Your task to perform on an android device: Open Youtube and go to "Your channel" Image 0: 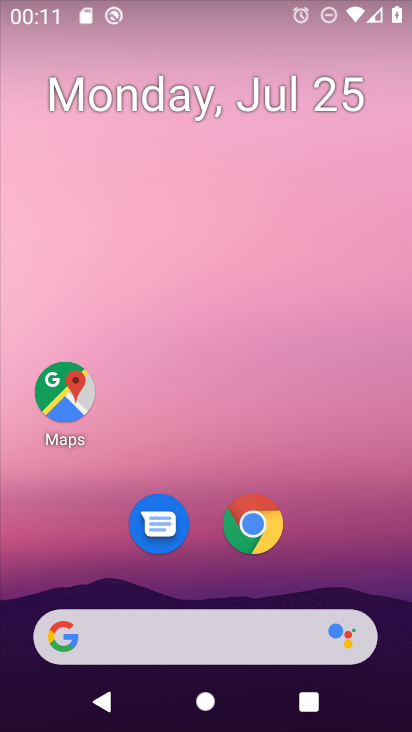
Step 0: press home button
Your task to perform on an android device: Open Youtube and go to "Your channel" Image 1: 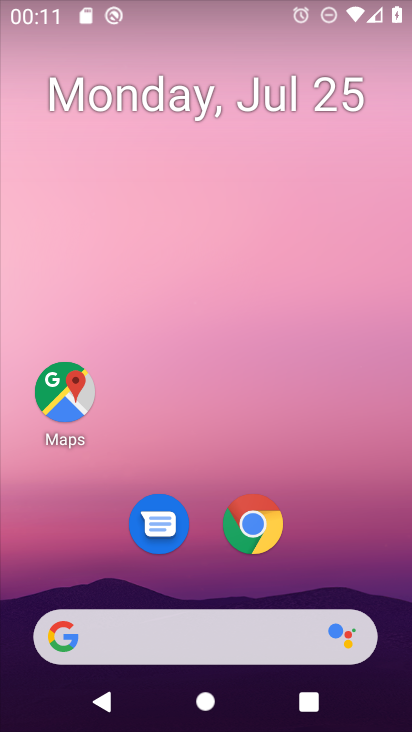
Step 1: drag from (208, 632) to (365, 24)
Your task to perform on an android device: Open Youtube and go to "Your channel" Image 2: 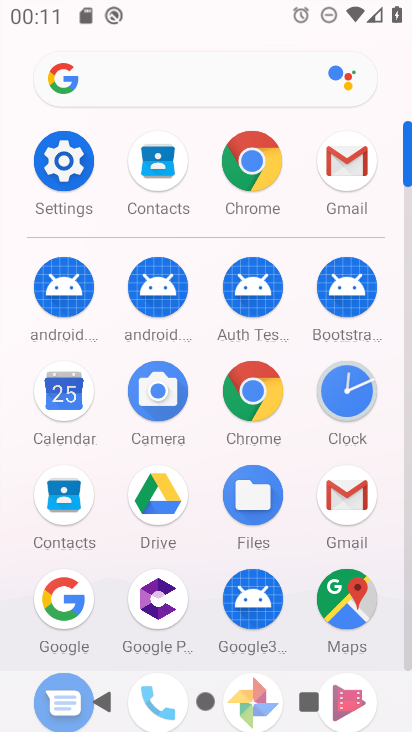
Step 2: drag from (204, 614) to (309, 102)
Your task to perform on an android device: Open Youtube and go to "Your channel" Image 3: 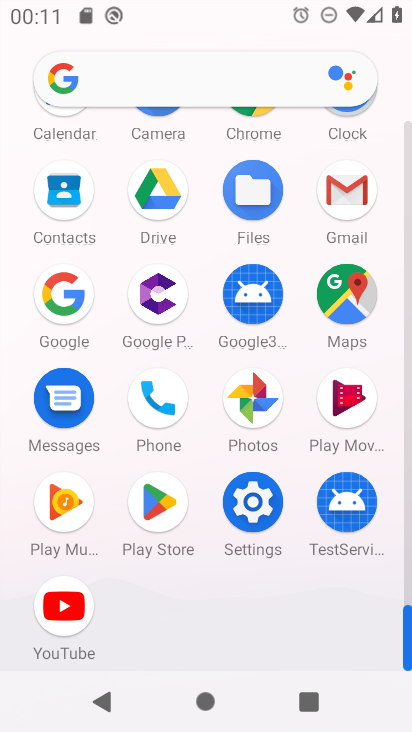
Step 3: click (54, 610)
Your task to perform on an android device: Open Youtube and go to "Your channel" Image 4: 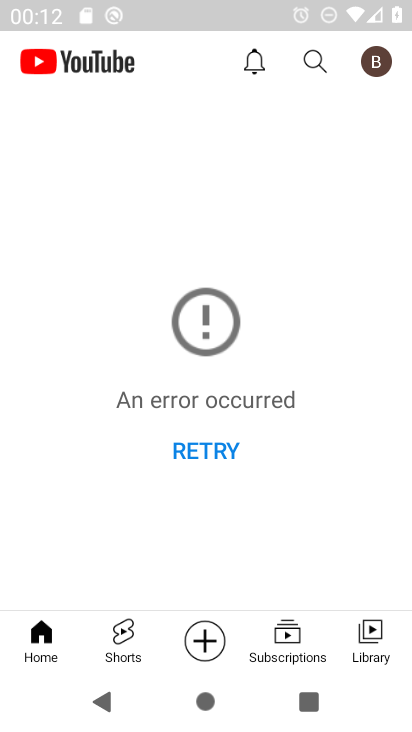
Step 4: click (208, 445)
Your task to perform on an android device: Open Youtube and go to "Your channel" Image 5: 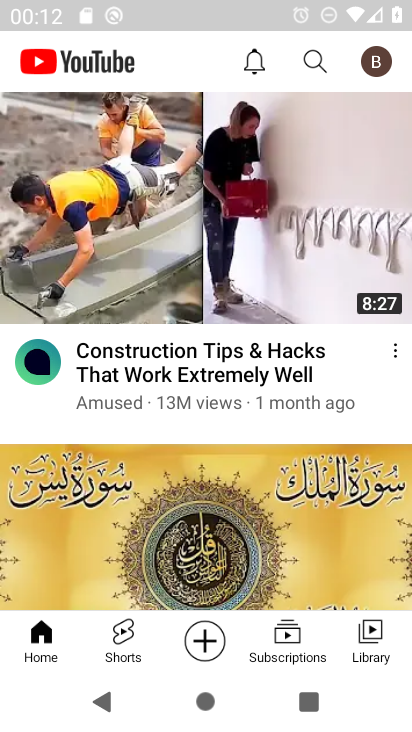
Step 5: click (371, 55)
Your task to perform on an android device: Open Youtube and go to "Your channel" Image 6: 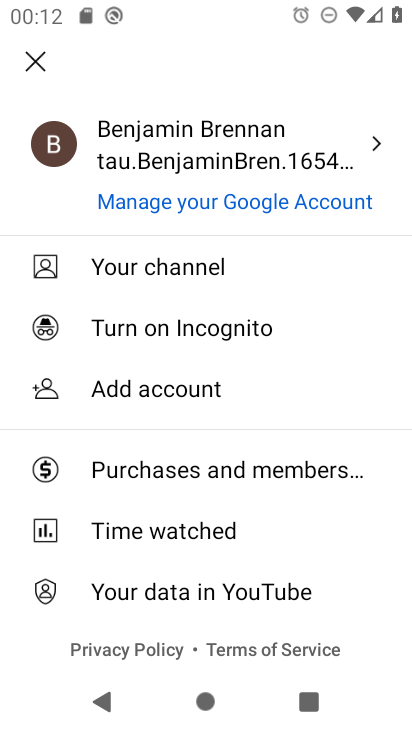
Step 6: click (167, 264)
Your task to perform on an android device: Open Youtube and go to "Your channel" Image 7: 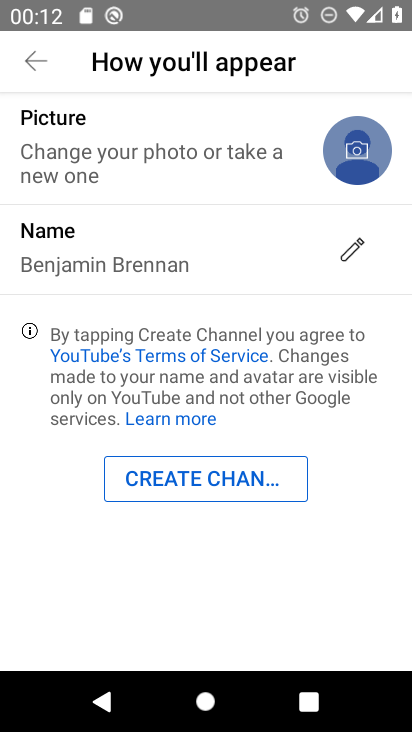
Step 7: task complete